Your task to perform on an android device: Open calendar and show me the fourth week of next month Image 0: 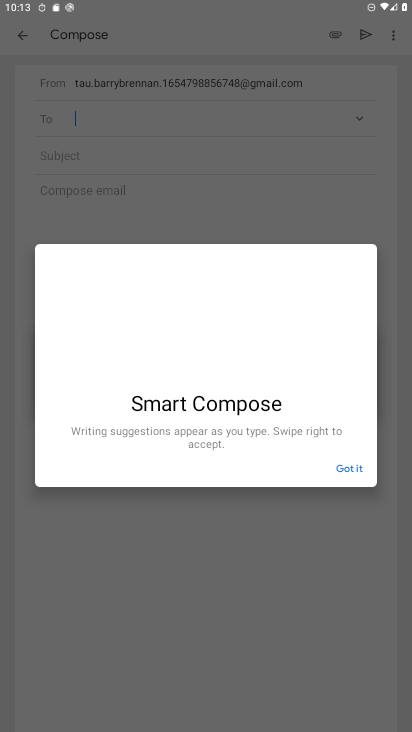
Step 0: press home button
Your task to perform on an android device: Open calendar and show me the fourth week of next month Image 1: 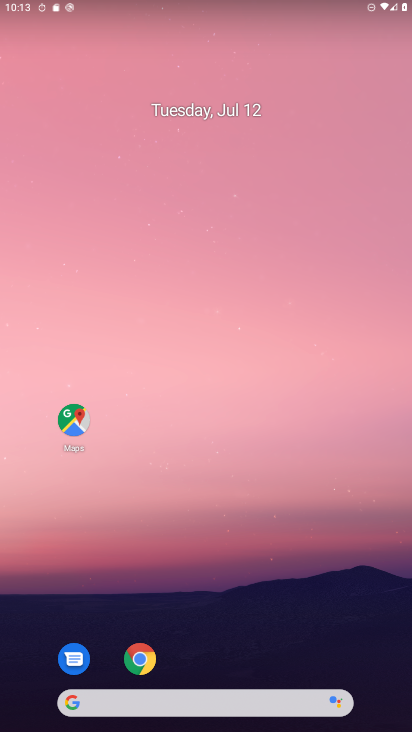
Step 1: click (178, 730)
Your task to perform on an android device: Open calendar and show me the fourth week of next month Image 2: 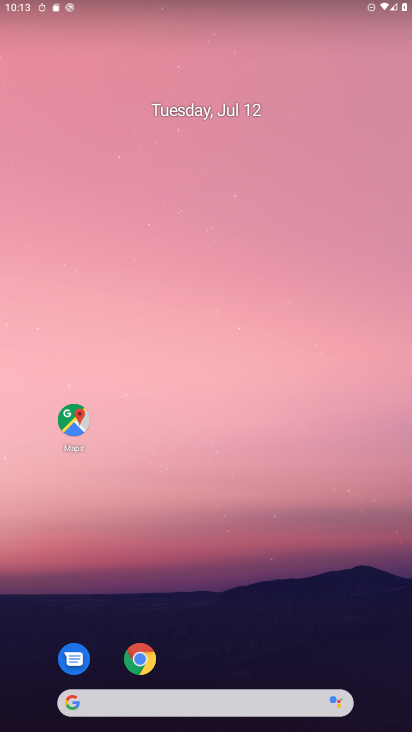
Step 2: drag from (162, 384) to (162, 114)
Your task to perform on an android device: Open calendar and show me the fourth week of next month Image 3: 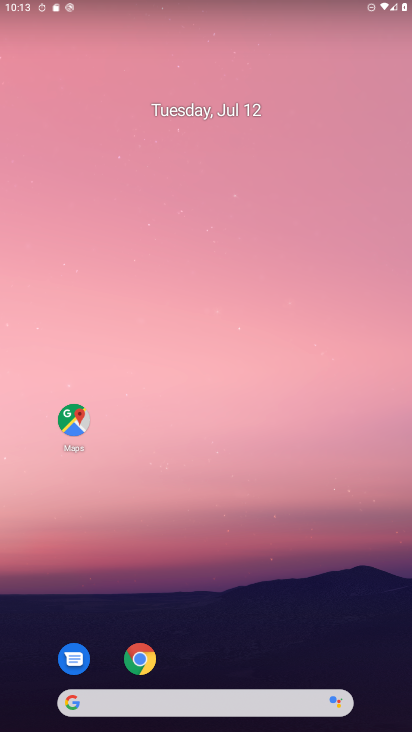
Step 3: drag from (212, 731) to (234, 113)
Your task to perform on an android device: Open calendar and show me the fourth week of next month Image 4: 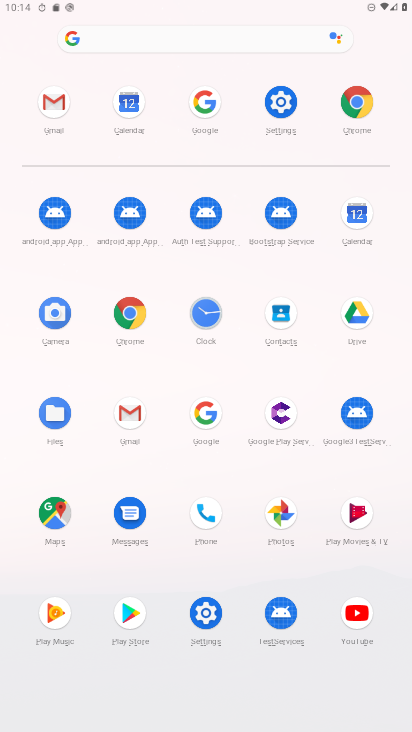
Step 4: click (356, 209)
Your task to perform on an android device: Open calendar and show me the fourth week of next month Image 5: 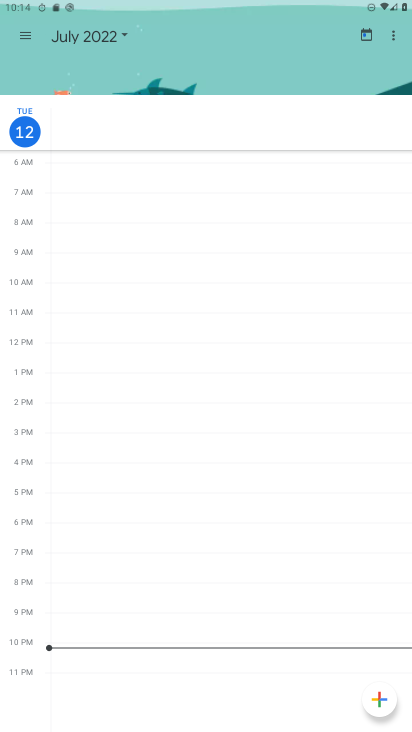
Step 5: click (128, 33)
Your task to perform on an android device: Open calendar and show me the fourth week of next month Image 6: 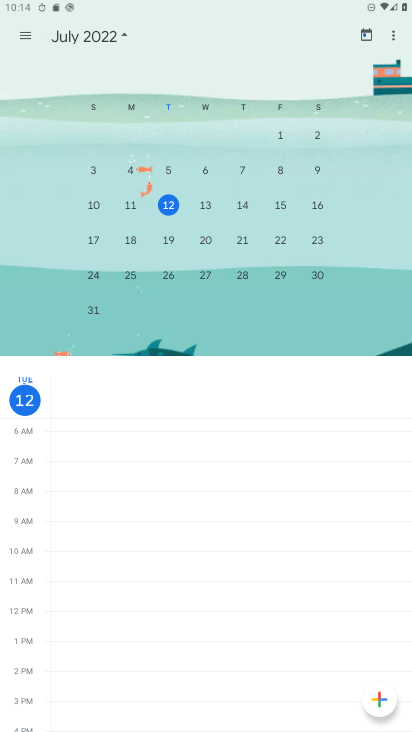
Step 6: drag from (328, 226) to (2, 222)
Your task to perform on an android device: Open calendar and show me the fourth week of next month Image 7: 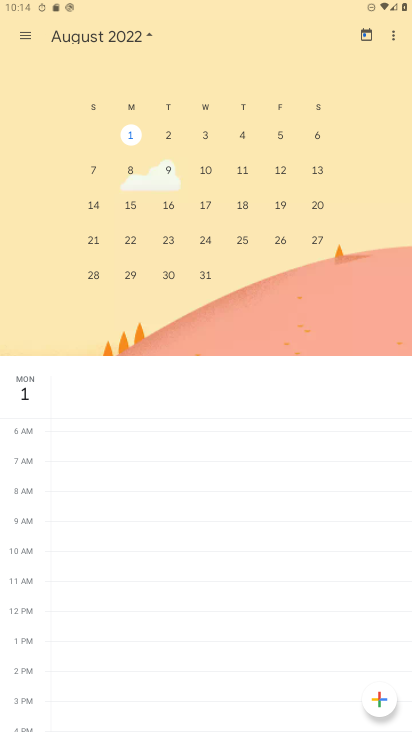
Step 7: click (129, 233)
Your task to perform on an android device: Open calendar and show me the fourth week of next month Image 8: 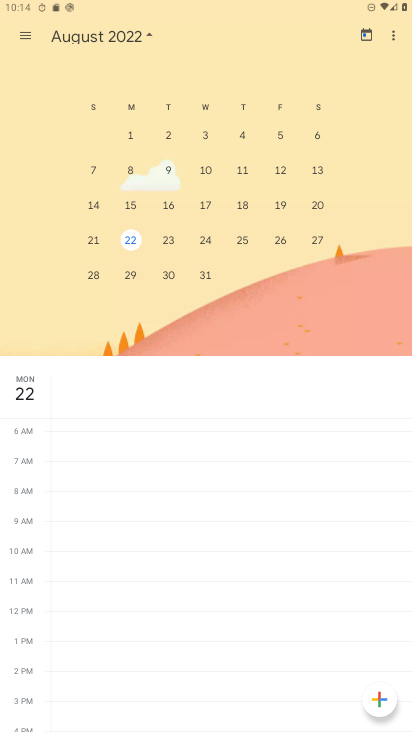
Step 8: click (23, 36)
Your task to perform on an android device: Open calendar and show me the fourth week of next month Image 9: 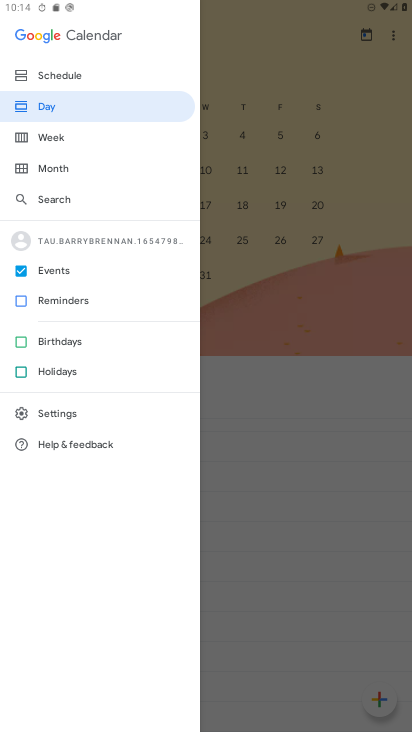
Step 9: click (56, 137)
Your task to perform on an android device: Open calendar and show me the fourth week of next month Image 10: 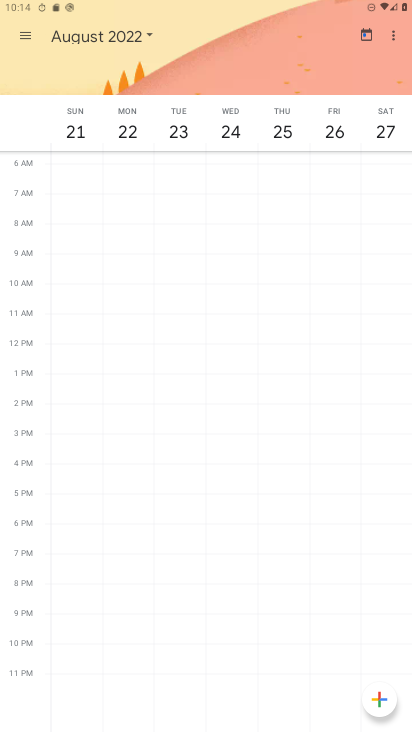
Step 10: task complete